Your task to perform on an android device: Play the last video I watched on Youtube Image 0: 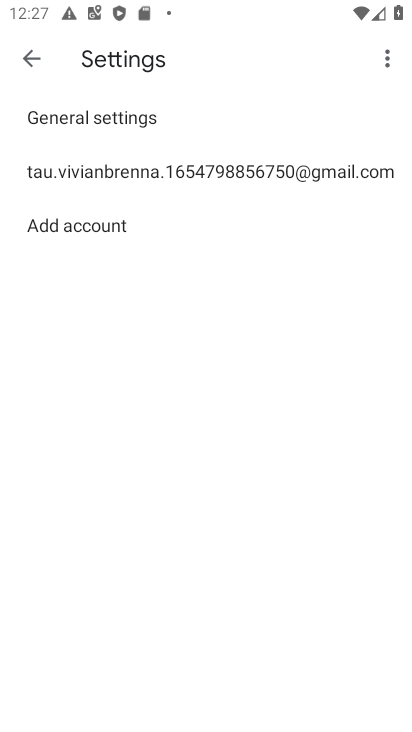
Step 0: press home button
Your task to perform on an android device: Play the last video I watched on Youtube Image 1: 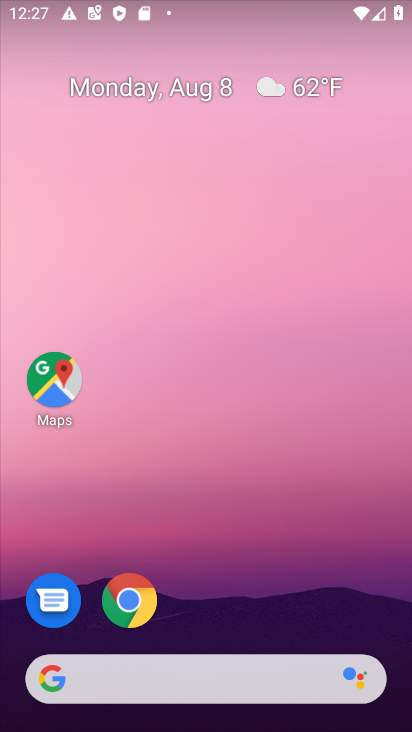
Step 1: drag from (225, 630) to (258, 287)
Your task to perform on an android device: Play the last video I watched on Youtube Image 2: 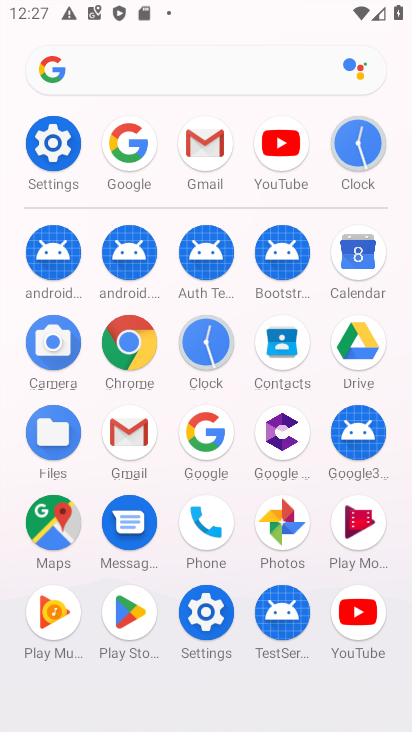
Step 2: click (271, 150)
Your task to perform on an android device: Play the last video I watched on Youtube Image 3: 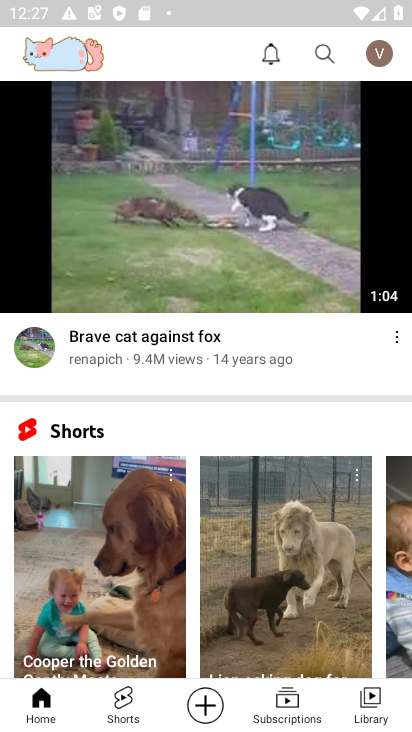
Step 3: click (379, 700)
Your task to perform on an android device: Play the last video I watched on Youtube Image 4: 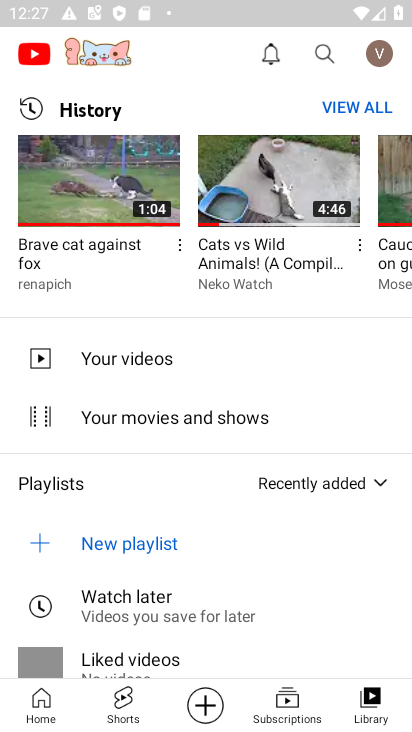
Step 4: click (77, 175)
Your task to perform on an android device: Play the last video I watched on Youtube Image 5: 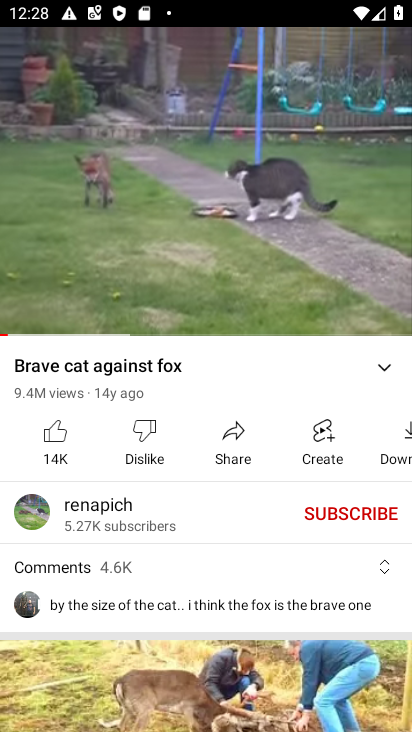
Step 5: click (182, 203)
Your task to perform on an android device: Play the last video I watched on Youtube Image 6: 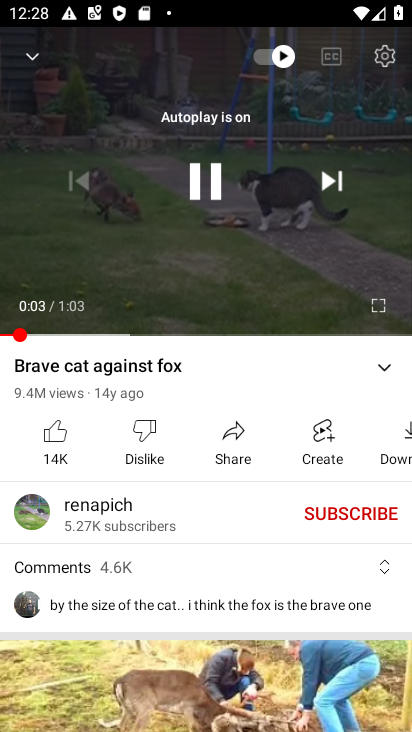
Step 6: click (203, 178)
Your task to perform on an android device: Play the last video I watched on Youtube Image 7: 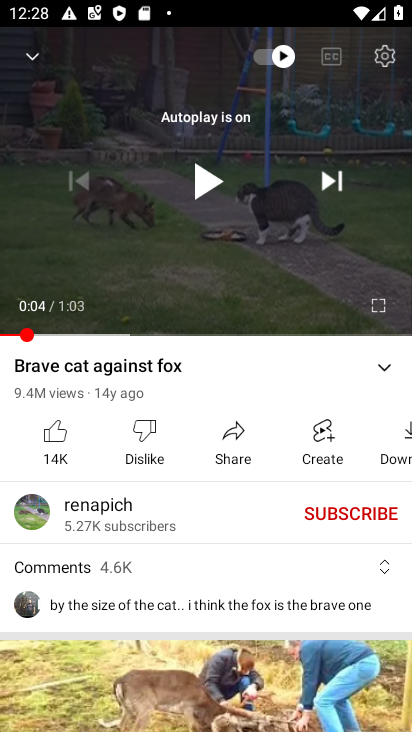
Step 7: task complete